Your task to perform on an android device: Open Yahoo.com Image 0: 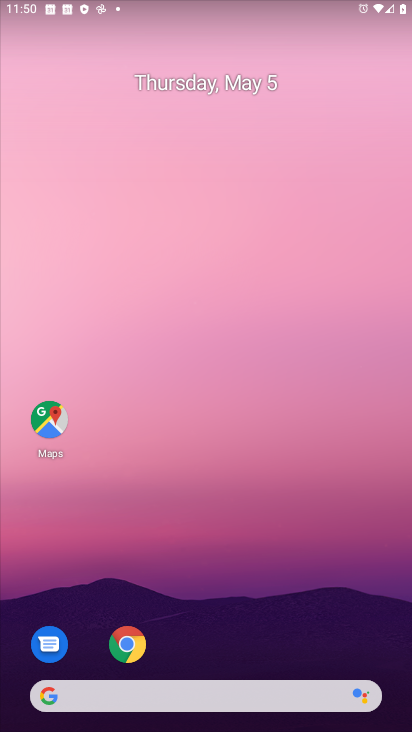
Step 0: drag from (233, 482) to (266, 95)
Your task to perform on an android device: Open Yahoo.com Image 1: 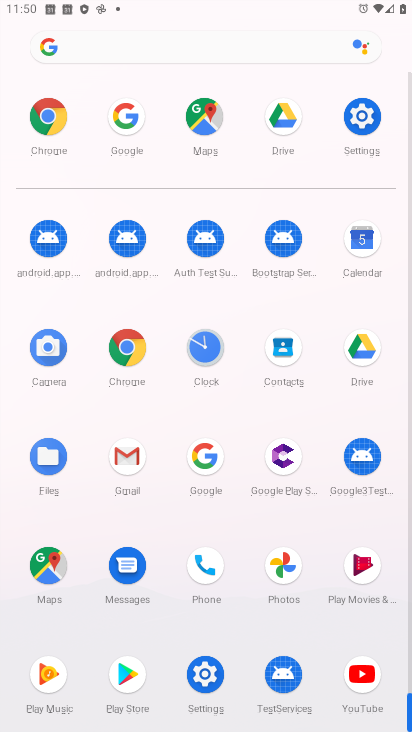
Step 1: click (167, 51)
Your task to perform on an android device: Open Yahoo.com Image 2: 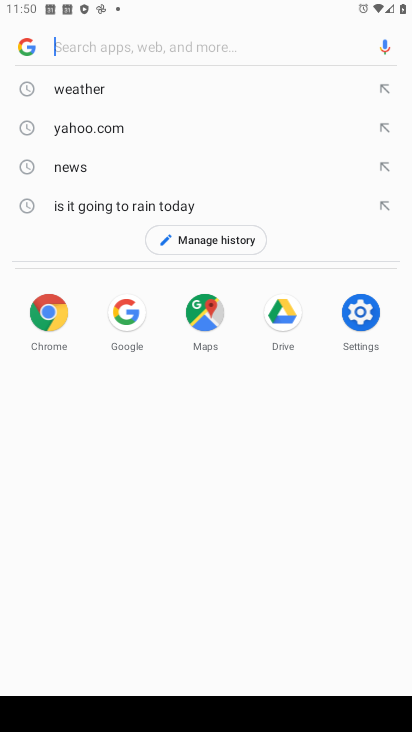
Step 2: click (118, 115)
Your task to perform on an android device: Open Yahoo.com Image 3: 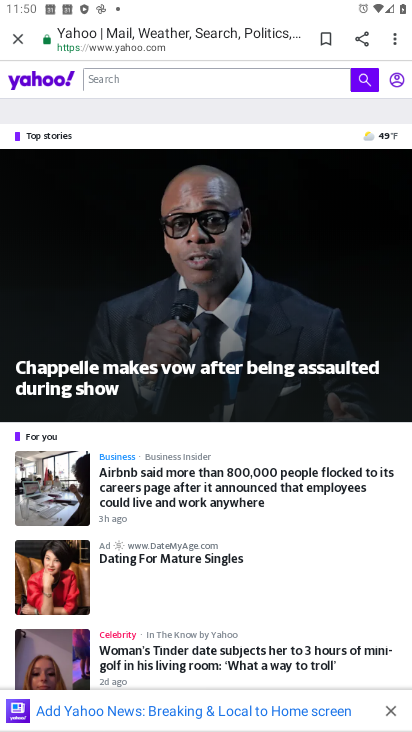
Step 3: task complete